Your task to perform on an android device: turn pop-ups on in chrome Image 0: 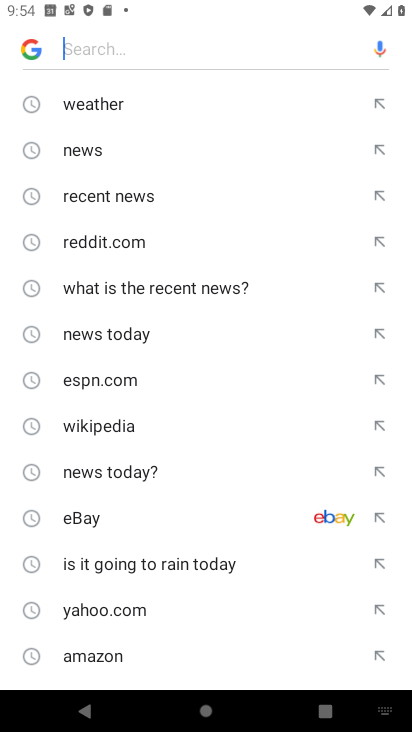
Step 0: press home button
Your task to perform on an android device: turn pop-ups on in chrome Image 1: 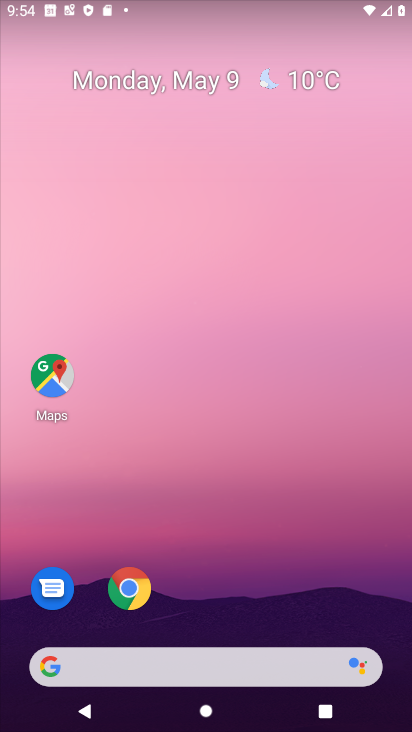
Step 1: drag from (165, 663) to (253, 206)
Your task to perform on an android device: turn pop-ups on in chrome Image 2: 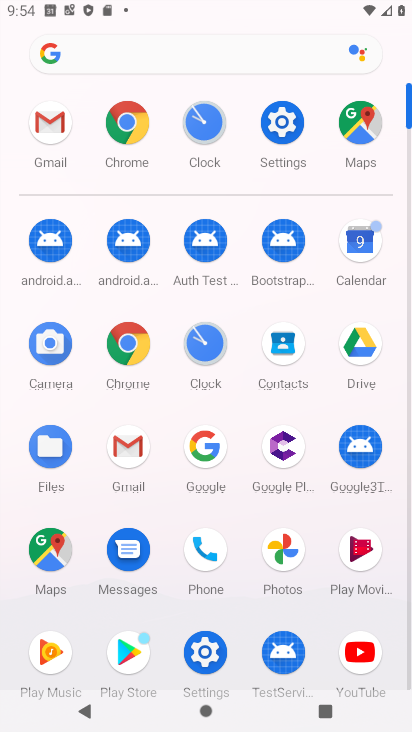
Step 2: click (134, 140)
Your task to perform on an android device: turn pop-ups on in chrome Image 3: 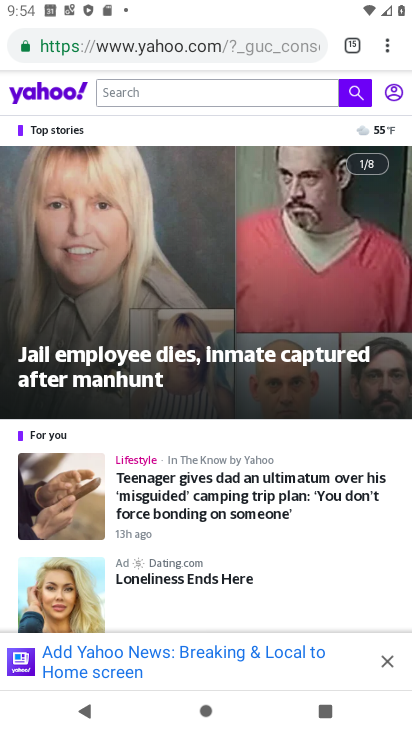
Step 3: drag from (389, 46) to (240, 557)
Your task to perform on an android device: turn pop-ups on in chrome Image 4: 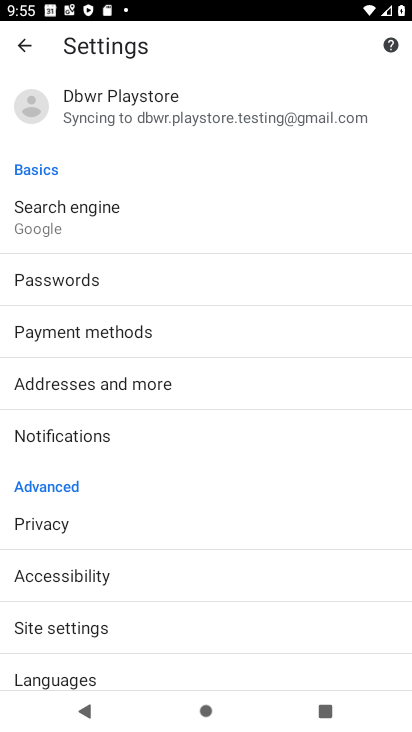
Step 4: drag from (137, 624) to (257, 279)
Your task to perform on an android device: turn pop-ups on in chrome Image 5: 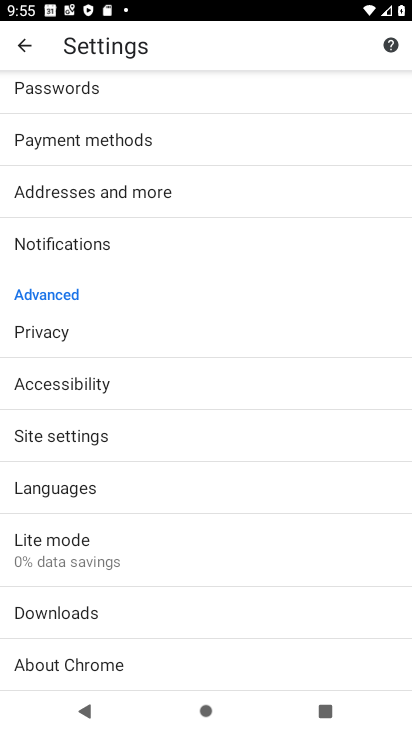
Step 5: click (104, 437)
Your task to perform on an android device: turn pop-ups on in chrome Image 6: 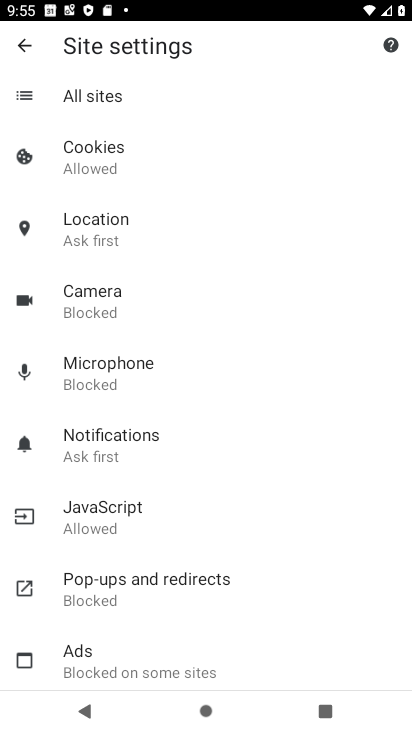
Step 6: click (136, 583)
Your task to perform on an android device: turn pop-ups on in chrome Image 7: 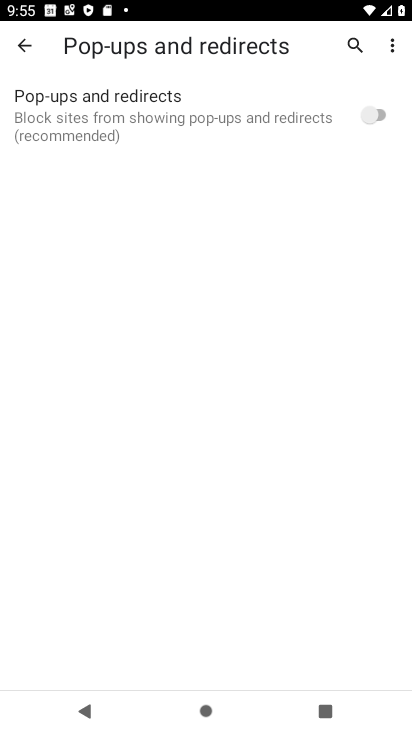
Step 7: click (375, 109)
Your task to perform on an android device: turn pop-ups on in chrome Image 8: 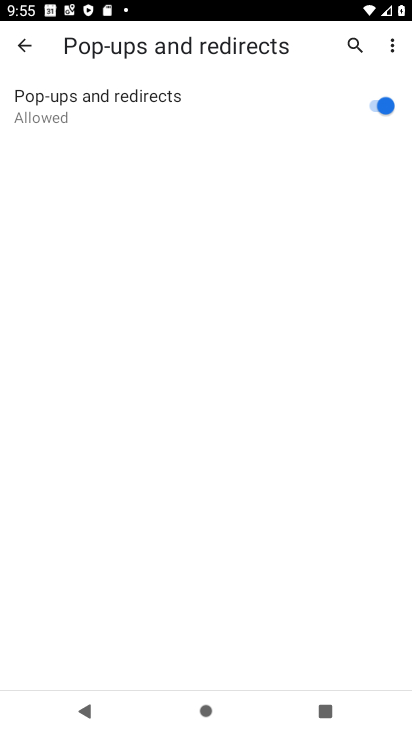
Step 8: task complete